Your task to perform on an android device: allow cookies in the chrome app Image 0: 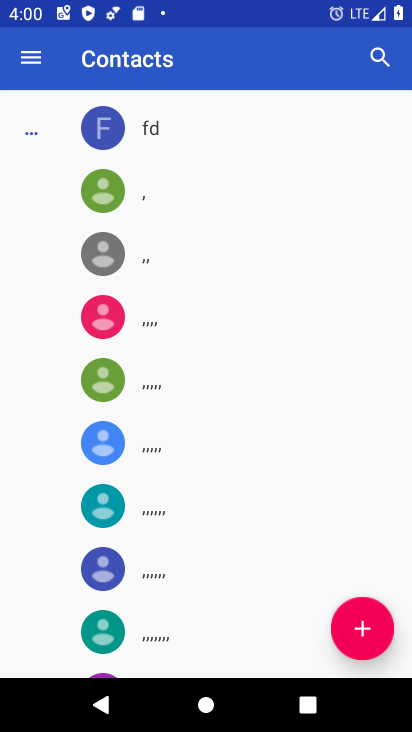
Step 0: press back button
Your task to perform on an android device: allow cookies in the chrome app Image 1: 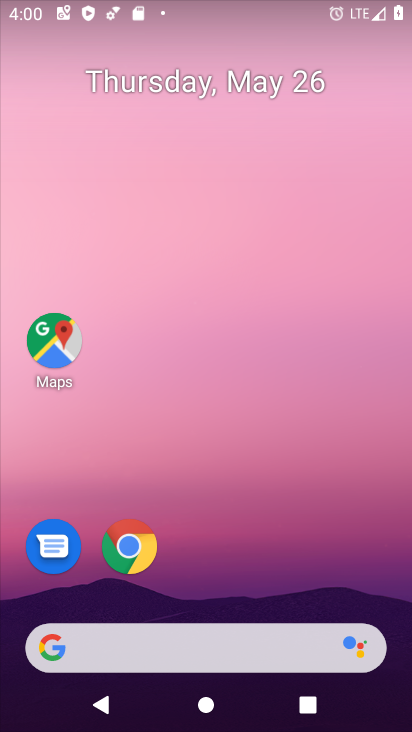
Step 1: click (120, 530)
Your task to perform on an android device: allow cookies in the chrome app Image 2: 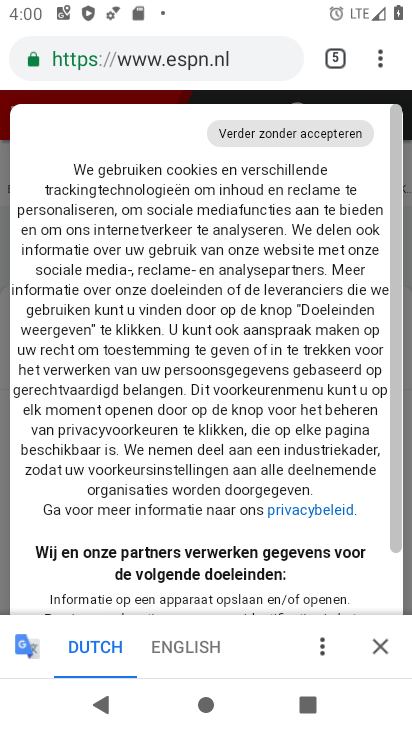
Step 2: drag from (376, 58) to (224, 571)
Your task to perform on an android device: allow cookies in the chrome app Image 3: 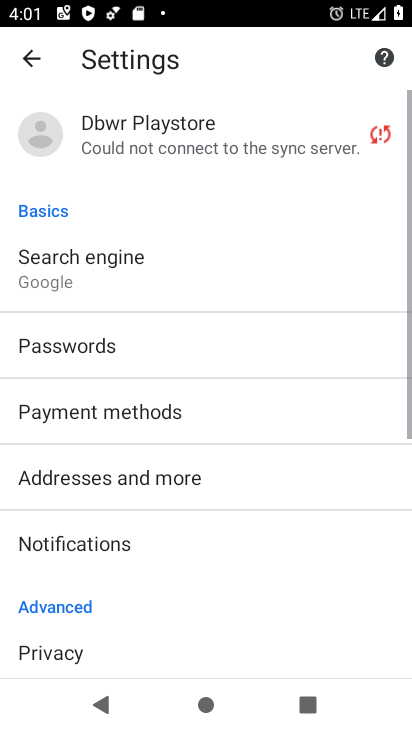
Step 3: drag from (211, 566) to (189, 537)
Your task to perform on an android device: allow cookies in the chrome app Image 4: 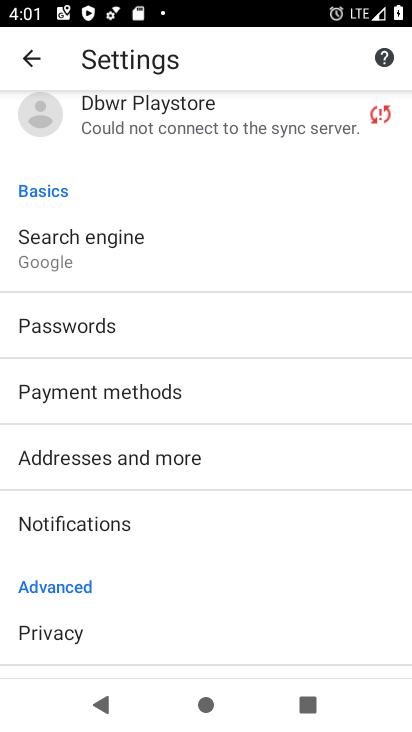
Step 4: drag from (136, 605) to (221, 136)
Your task to perform on an android device: allow cookies in the chrome app Image 5: 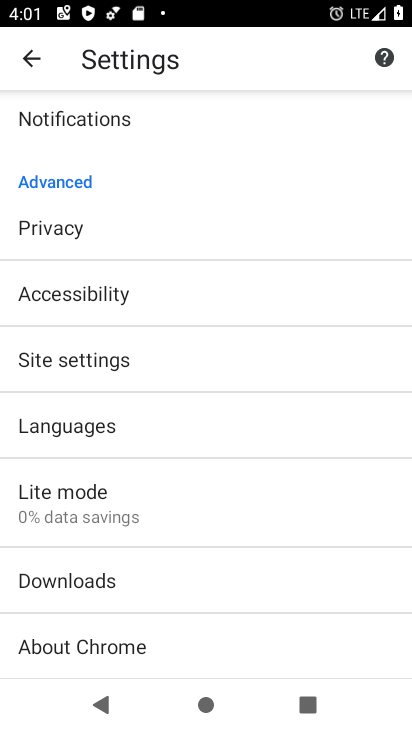
Step 5: click (98, 356)
Your task to perform on an android device: allow cookies in the chrome app Image 6: 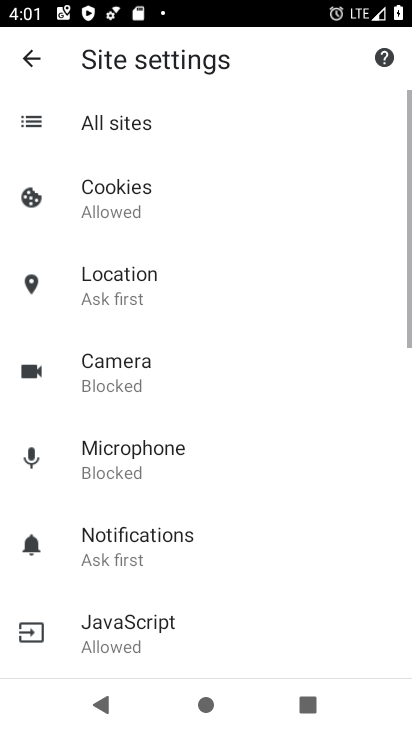
Step 6: click (160, 194)
Your task to perform on an android device: allow cookies in the chrome app Image 7: 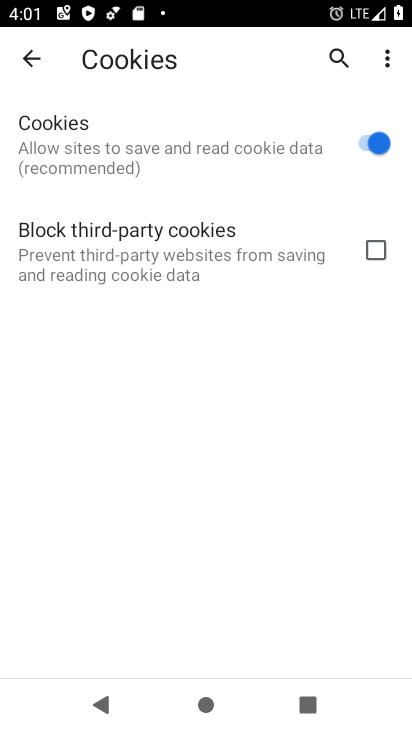
Step 7: task complete